Your task to perform on an android device: open app "The Home Depot" (install if not already installed) Image 0: 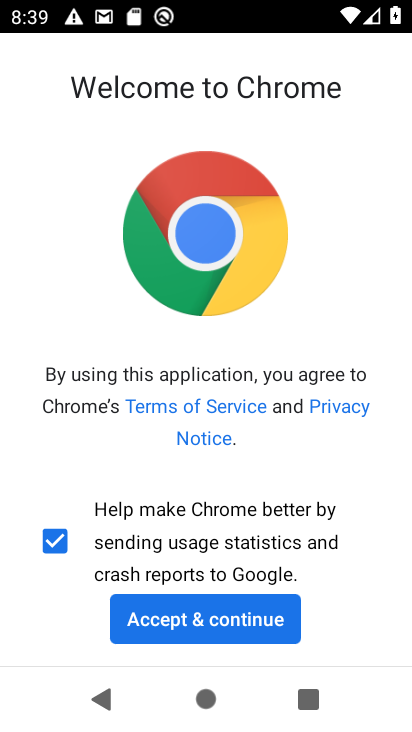
Step 0: press home button
Your task to perform on an android device: open app "The Home Depot" (install if not already installed) Image 1: 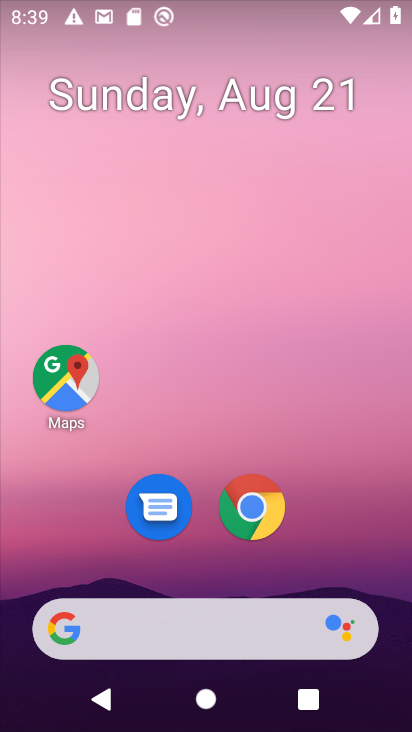
Step 1: drag from (210, 570) to (189, 3)
Your task to perform on an android device: open app "The Home Depot" (install if not already installed) Image 2: 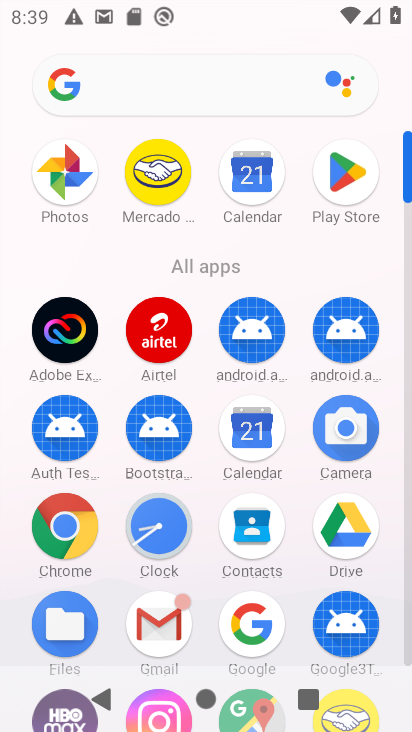
Step 2: click (334, 161)
Your task to perform on an android device: open app "The Home Depot" (install if not already installed) Image 3: 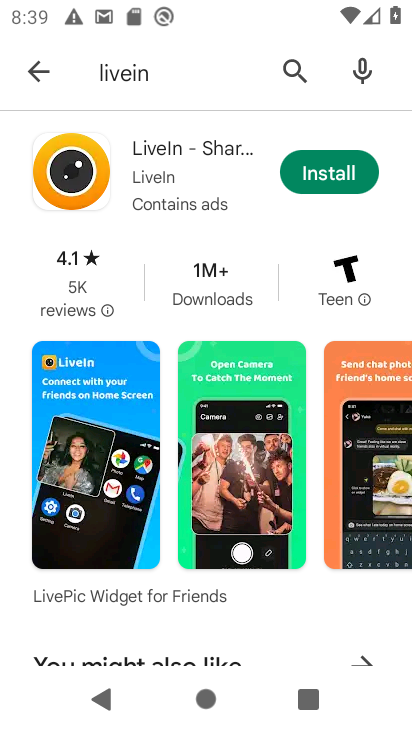
Step 3: click (40, 80)
Your task to perform on an android device: open app "The Home Depot" (install if not already installed) Image 4: 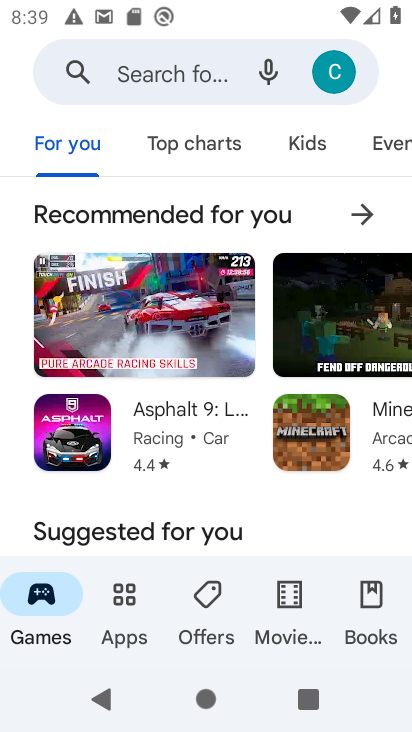
Step 4: click (149, 68)
Your task to perform on an android device: open app "The Home Depot" (install if not already installed) Image 5: 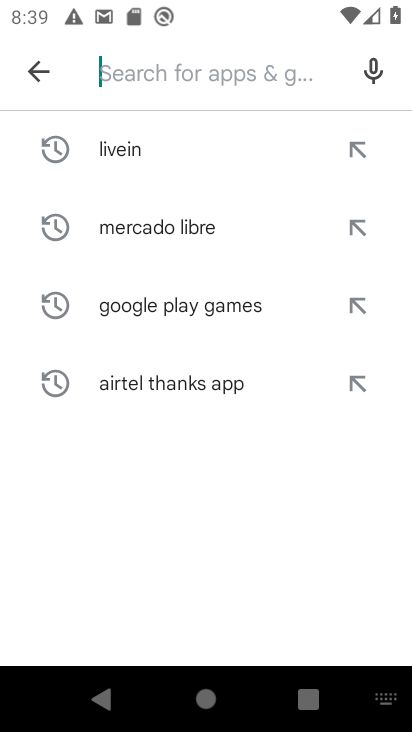
Step 5: type "The Home Depot"
Your task to perform on an android device: open app "The Home Depot" (install if not already installed) Image 6: 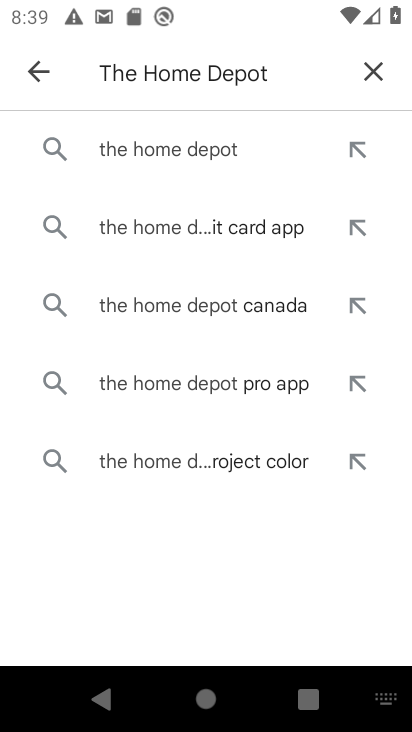
Step 6: click (229, 146)
Your task to perform on an android device: open app "The Home Depot" (install if not already installed) Image 7: 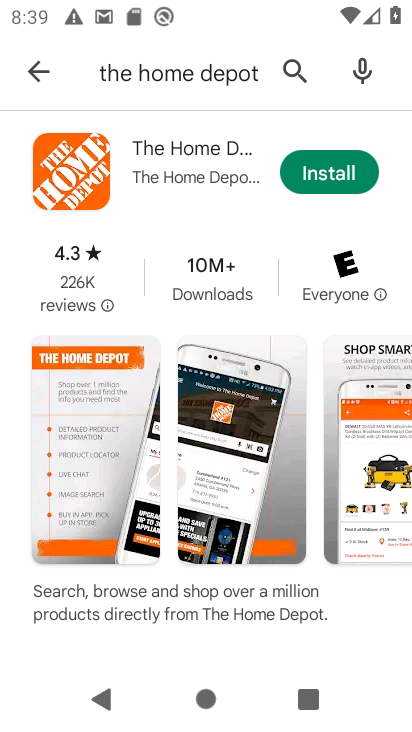
Step 7: click (323, 173)
Your task to perform on an android device: open app "The Home Depot" (install if not already installed) Image 8: 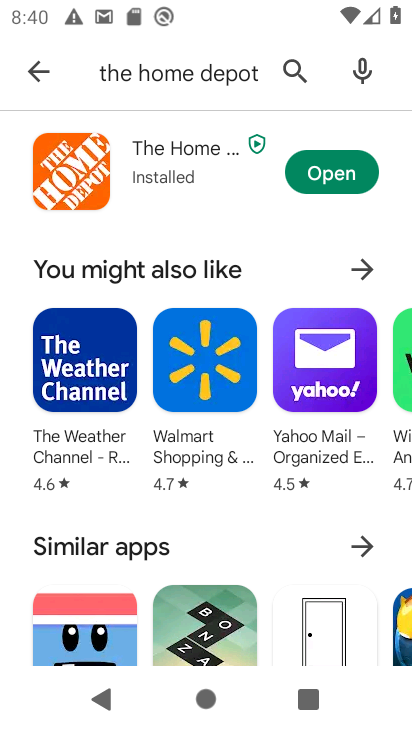
Step 8: click (322, 163)
Your task to perform on an android device: open app "The Home Depot" (install if not already installed) Image 9: 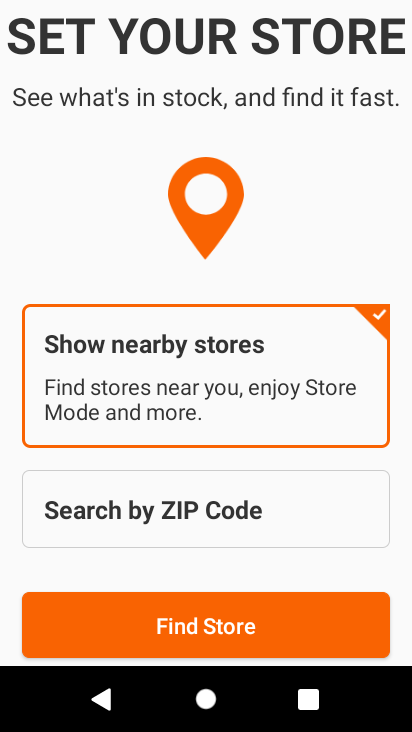
Step 9: task complete